Your task to perform on an android device: turn off notifications settings in the gmail app Image 0: 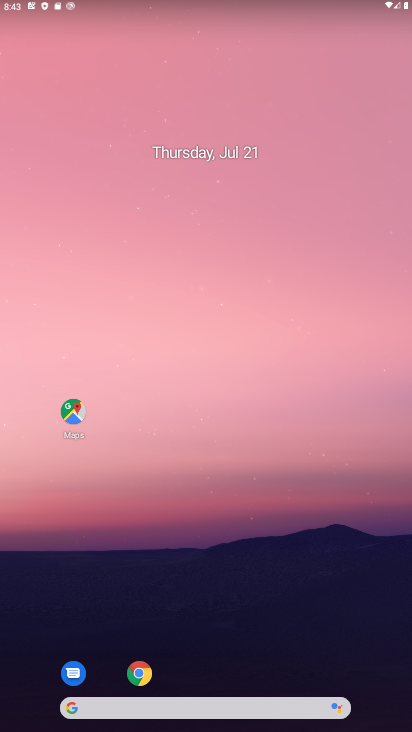
Step 0: drag from (250, 683) to (221, 139)
Your task to perform on an android device: turn off notifications settings in the gmail app Image 1: 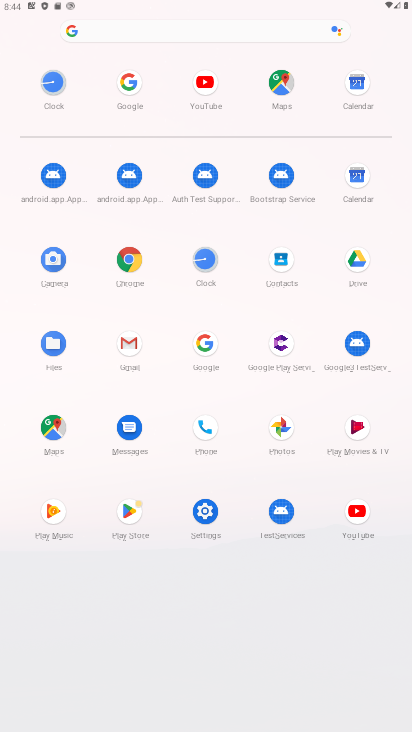
Step 1: click (130, 335)
Your task to perform on an android device: turn off notifications settings in the gmail app Image 2: 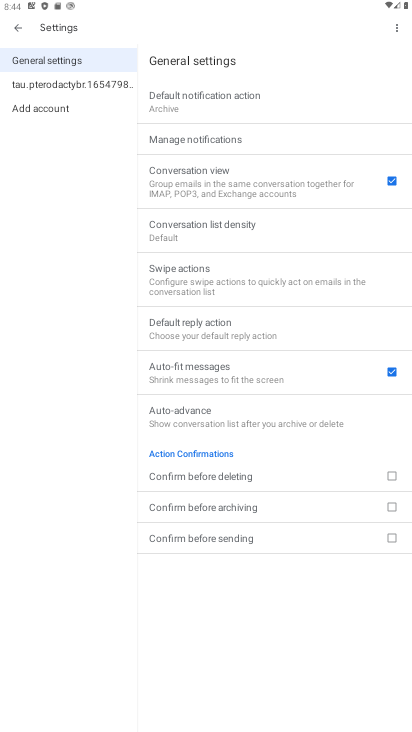
Step 2: click (43, 84)
Your task to perform on an android device: turn off notifications settings in the gmail app Image 3: 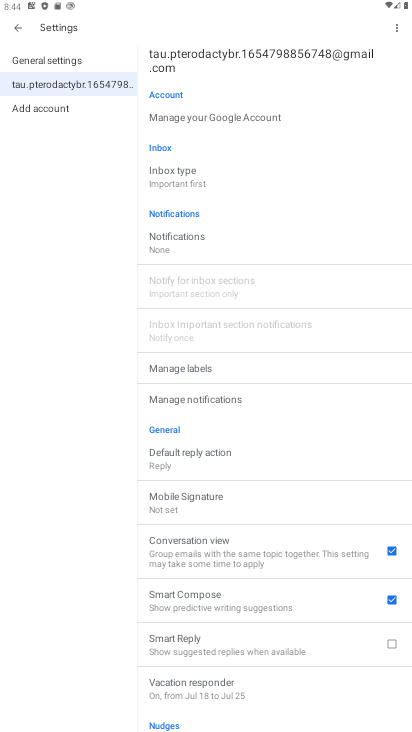
Step 3: click (179, 244)
Your task to perform on an android device: turn off notifications settings in the gmail app Image 4: 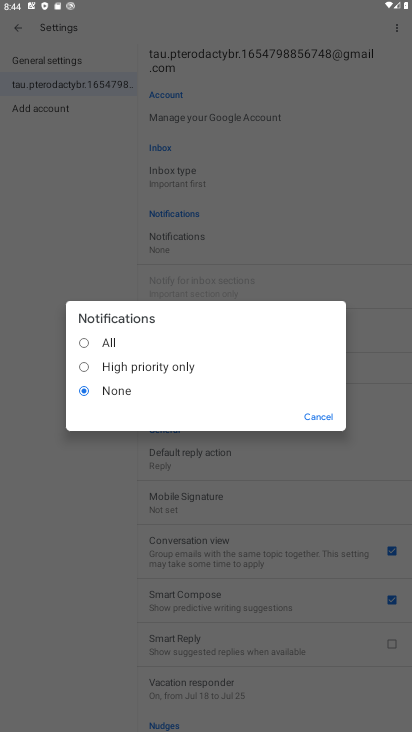
Step 4: task complete